Your task to perform on an android device: refresh tabs in the chrome app Image 0: 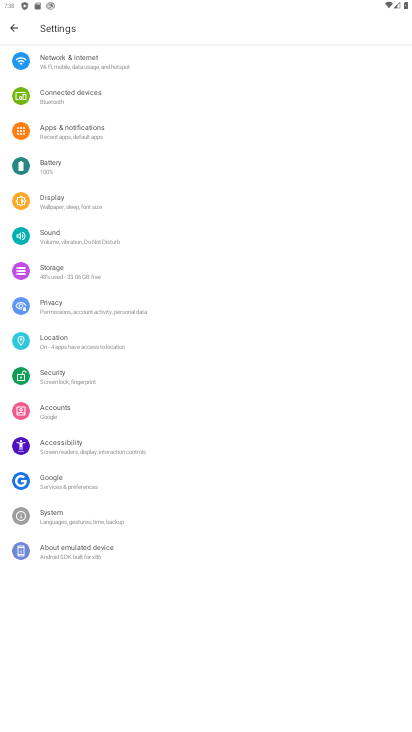
Step 0: press home button
Your task to perform on an android device: refresh tabs in the chrome app Image 1: 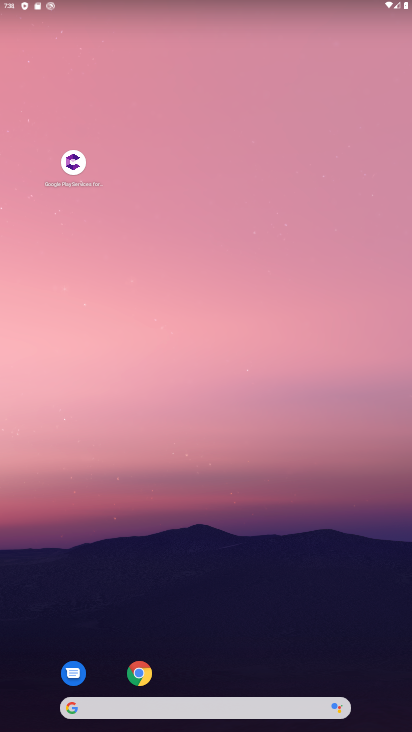
Step 1: click (140, 673)
Your task to perform on an android device: refresh tabs in the chrome app Image 2: 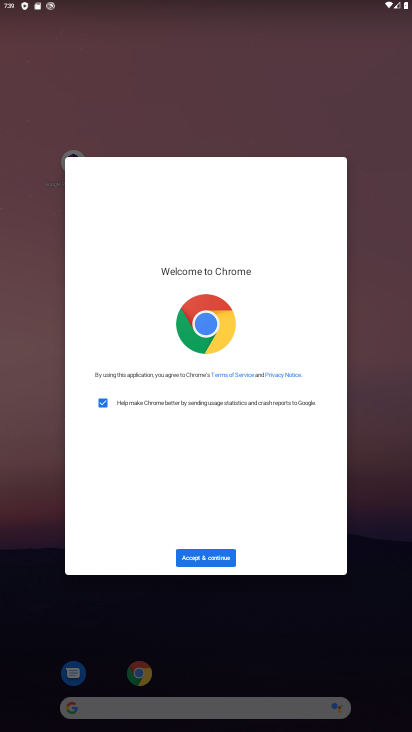
Step 2: click (202, 547)
Your task to perform on an android device: refresh tabs in the chrome app Image 3: 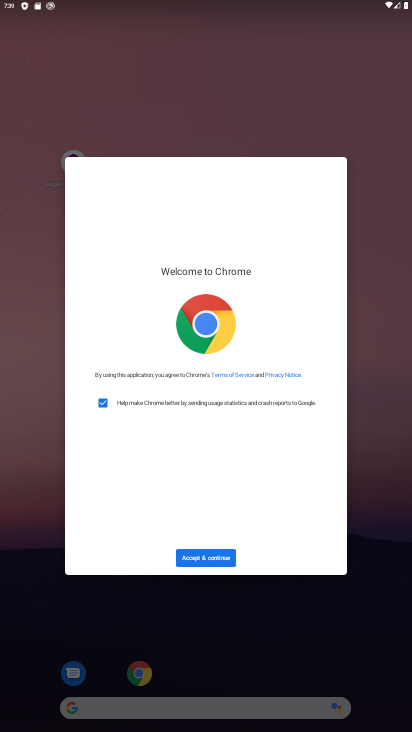
Step 3: click (193, 553)
Your task to perform on an android device: refresh tabs in the chrome app Image 4: 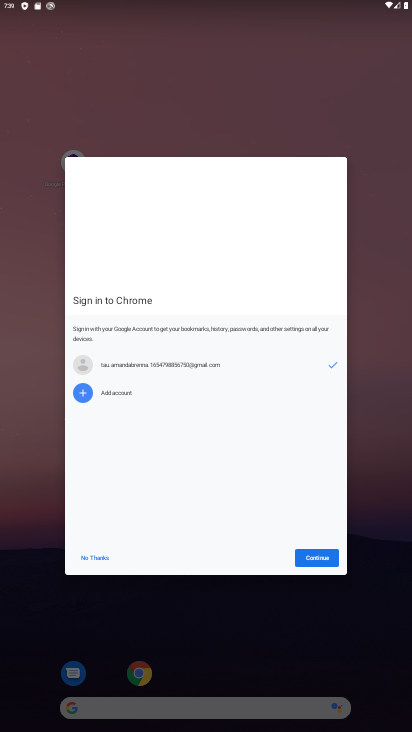
Step 4: click (338, 553)
Your task to perform on an android device: refresh tabs in the chrome app Image 5: 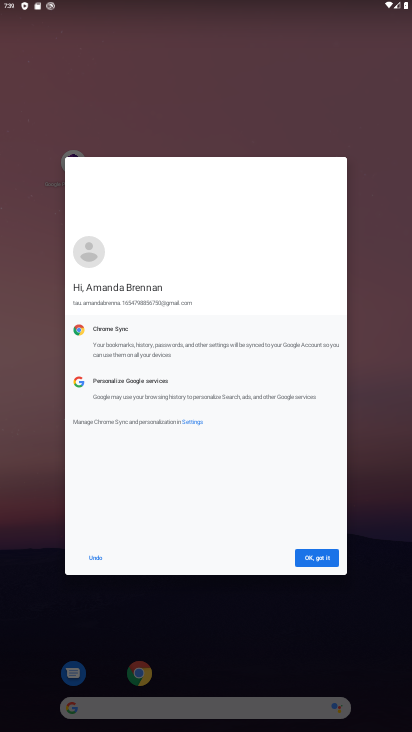
Step 5: click (320, 556)
Your task to perform on an android device: refresh tabs in the chrome app Image 6: 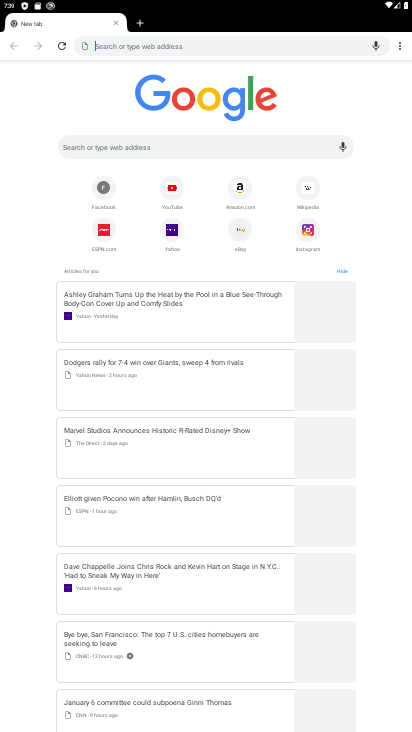
Step 6: click (403, 50)
Your task to perform on an android device: refresh tabs in the chrome app Image 7: 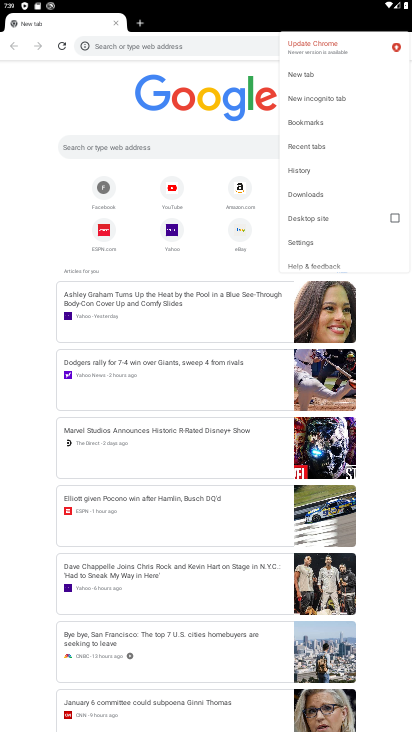
Step 7: click (65, 45)
Your task to perform on an android device: refresh tabs in the chrome app Image 8: 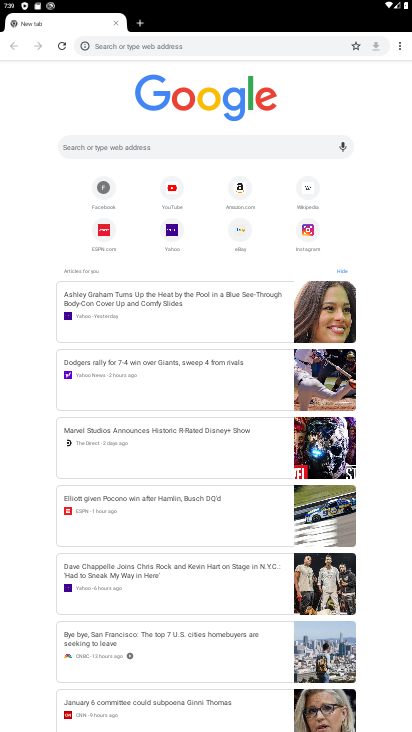
Step 8: click (65, 45)
Your task to perform on an android device: refresh tabs in the chrome app Image 9: 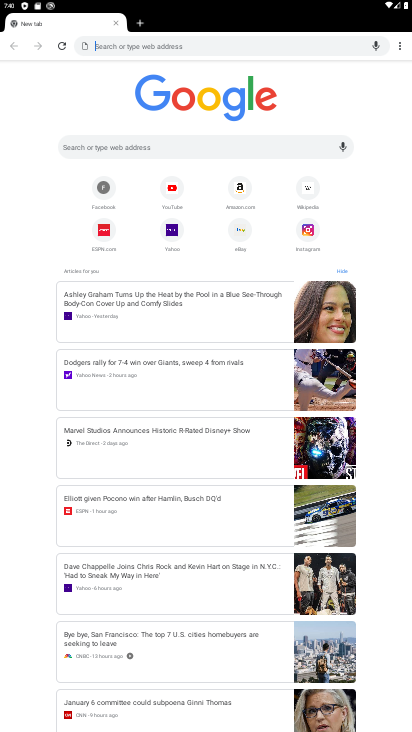
Step 9: task complete